Your task to perform on an android device: Open the web browser Image 0: 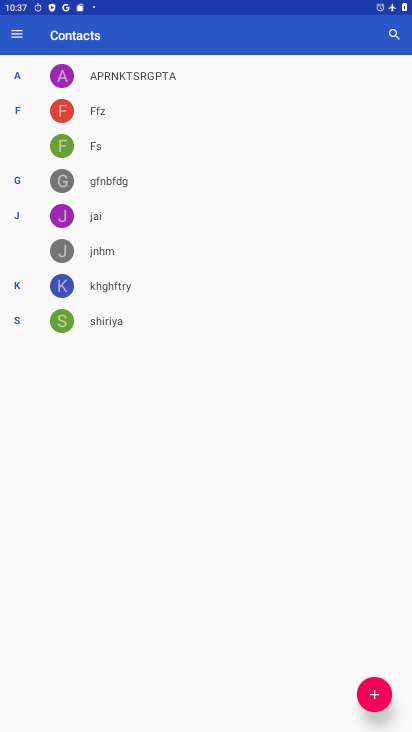
Step 0: press home button
Your task to perform on an android device: Open the web browser Image 1: 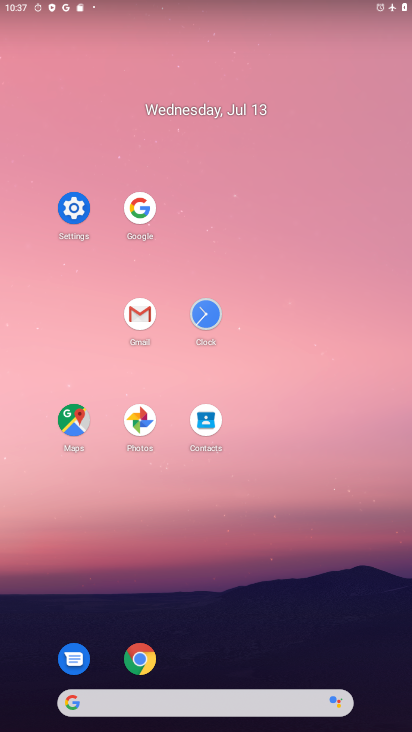
Step 1: click (148, 664)
Your task to perform on an android device: Open the web browser Image 2: 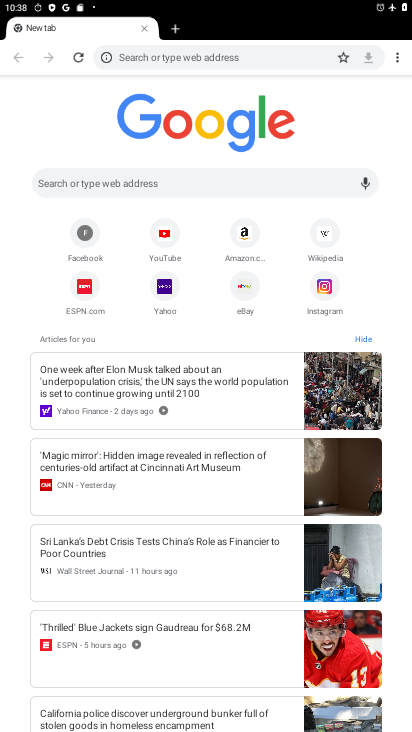
Step 2: task complete